Your task to perform on an android device: read, delete, or share a saved page in the chrome app Image 0: 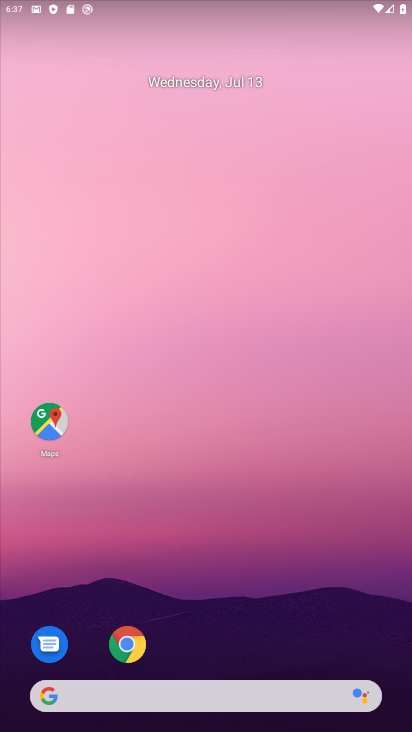
Step 0: click (127, 646)
Your task to perform on an android device: read, delete, or share a saved page in the chrome app Image 1: 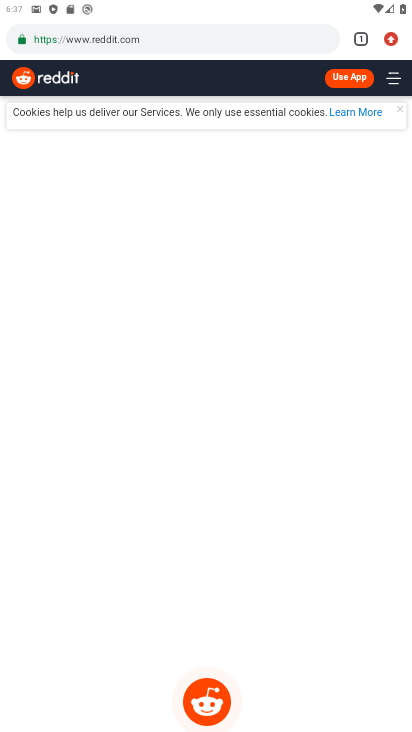
Step 1: click (391, 38)
Your task to perform on an android device: read, delete, or share a saved page in the chrome app Image 2: 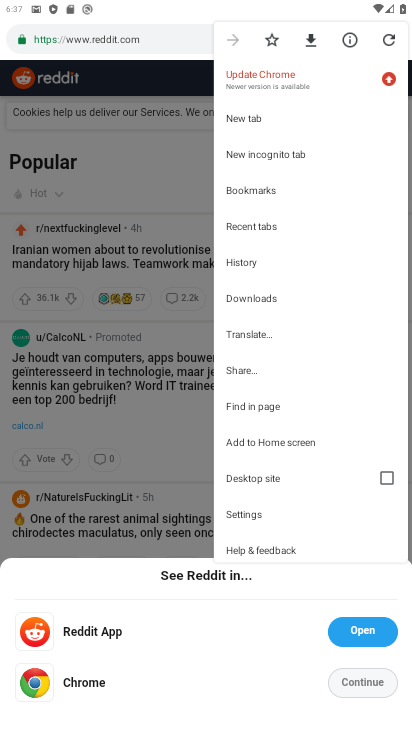
Step 2: click (262, 296)
Your task to perform on an android device: read, delete, or share a saved page in the chrome app Image 3: 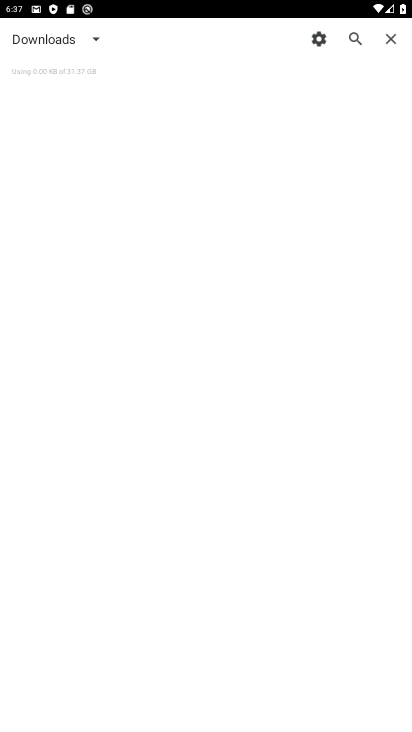
Step 3: task complete